Your task to perform on an android device: change the upload size in google photos Image 0: 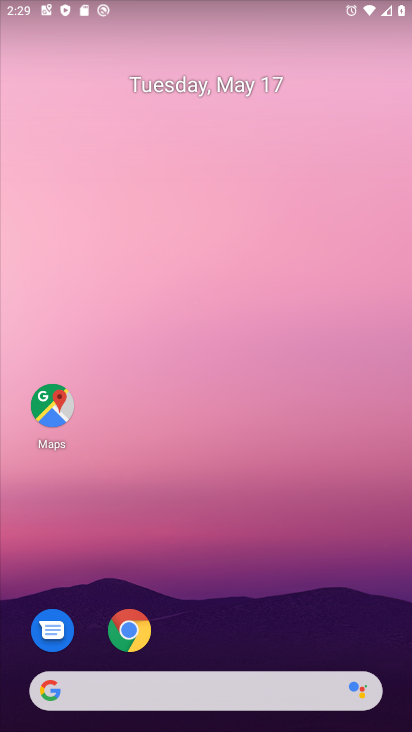
Step 0: drag from (275, 622) to (174, 203)
Your task to perform on an android device: change the upload size in google photos Image 1: 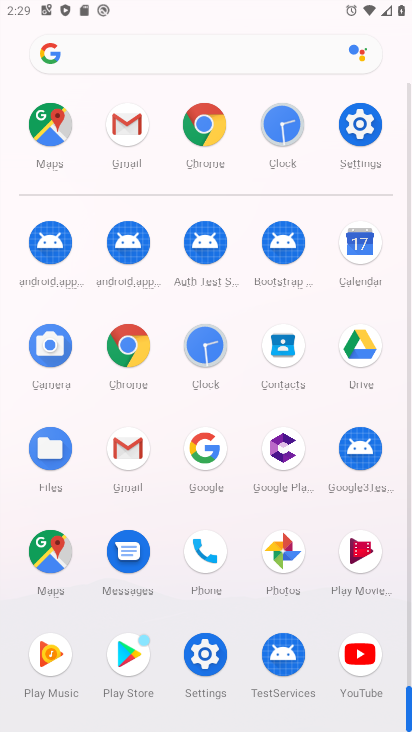
Step 1: click (274, 544)
Your task to perform on an android device: change the upload size in google photos Image 2: 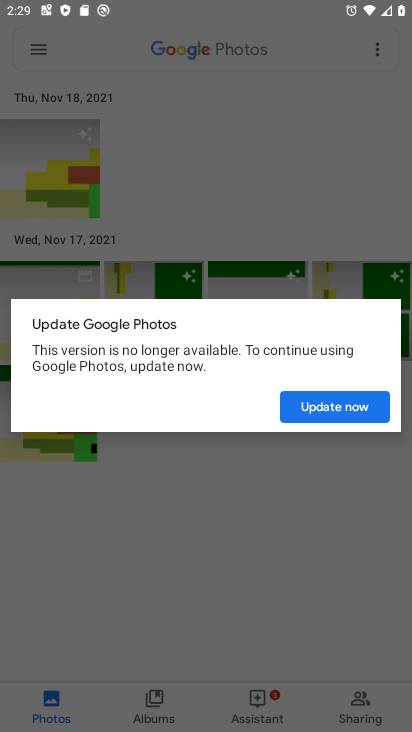
Step 2: click (331, 394)
Your task to perform on an android device: change the upload size in google photos Image 3: 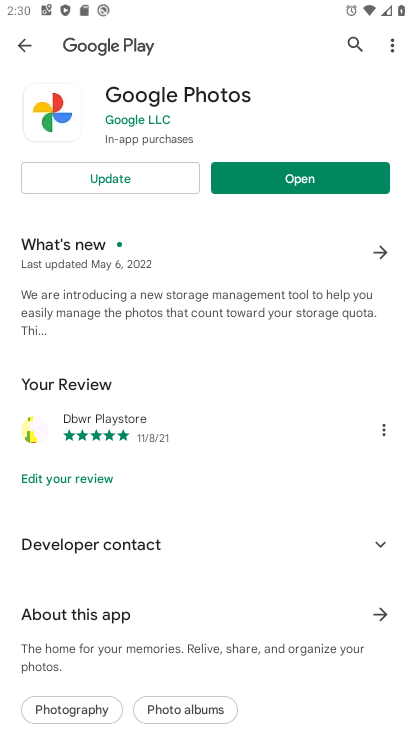
Step 3: click (132, 176)
Your task to perform on an android device: change the upload size in google photos Image 4: 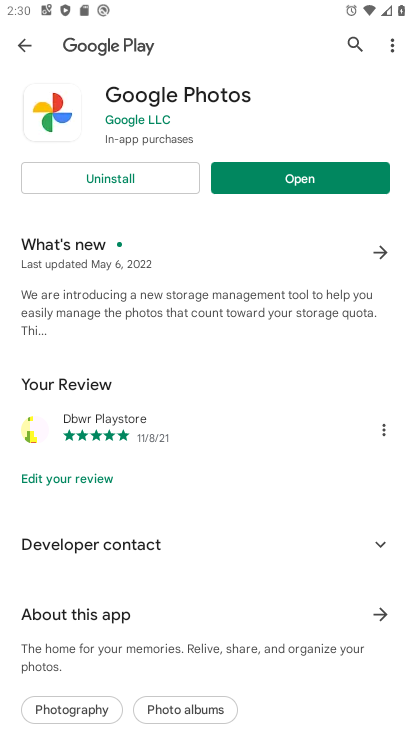
Step 4: click (286, 173)
Your task to perform on an android device: change the upload size in google photos Image 5: 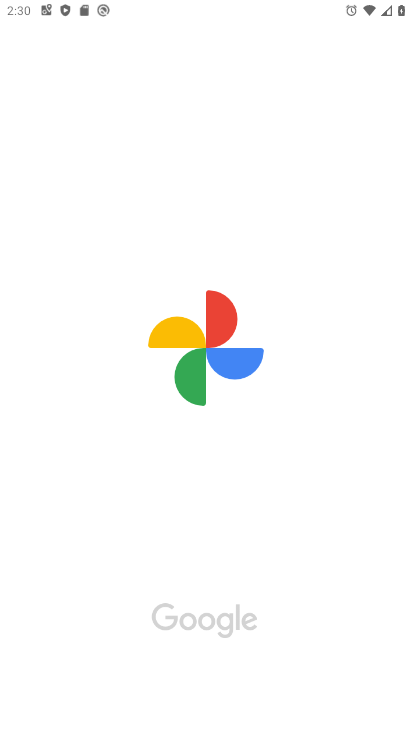
Step 5: task complete